Your task to perform on an android device: Go to display settings Image 0: 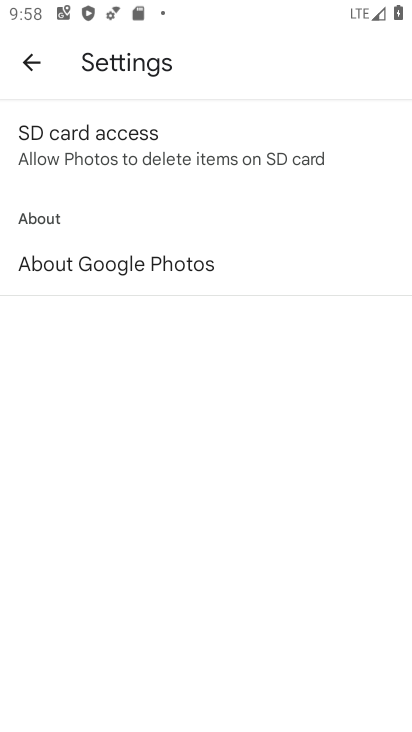
Step 0: press home button
Your task to perform on an android device: Go to display settings Image 1: 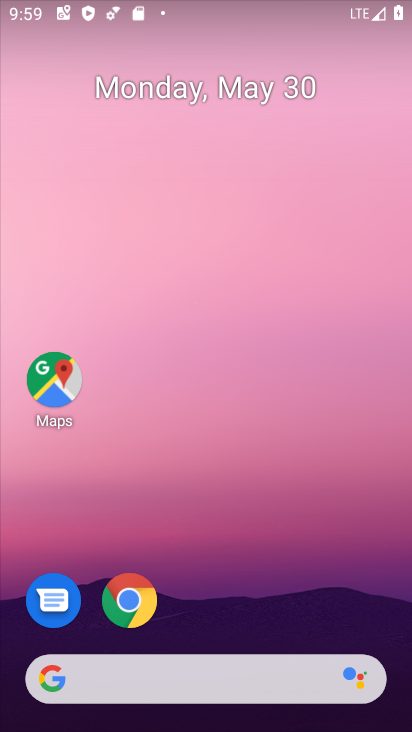
Step 1: drag from (284, 588) to (270, 428)
Your task to perform on an android device: Go to display settings Image 2: 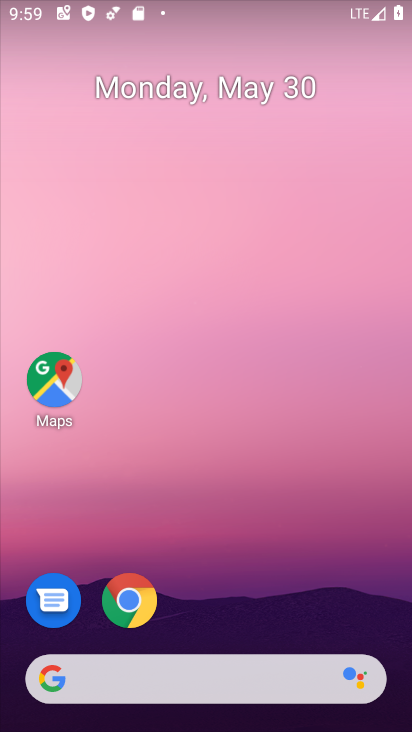
Step 2: drag from (320, 537) to (270, 0)
Your task to perform on an android device: Go to display settings Image 3: 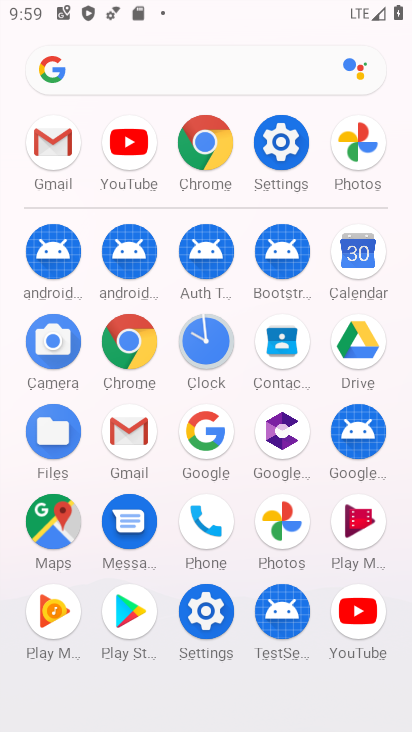
Step 3: click (279, 142)
Your task to perform on an android device: Go to display settings Image 4: 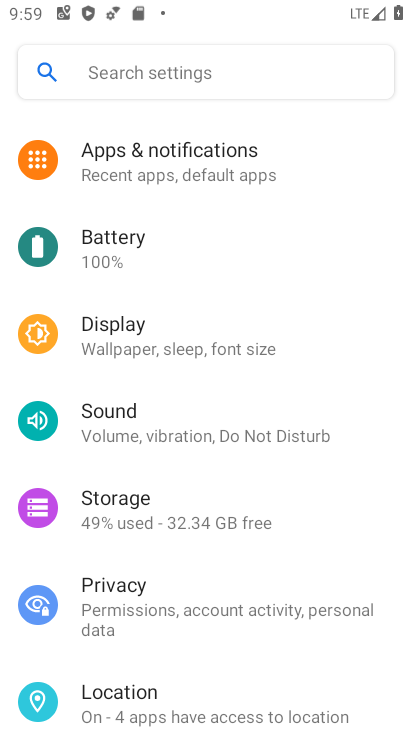
Step 4: click (150, 344)
Your task to perform on an android device: Go to display settings Image 5: 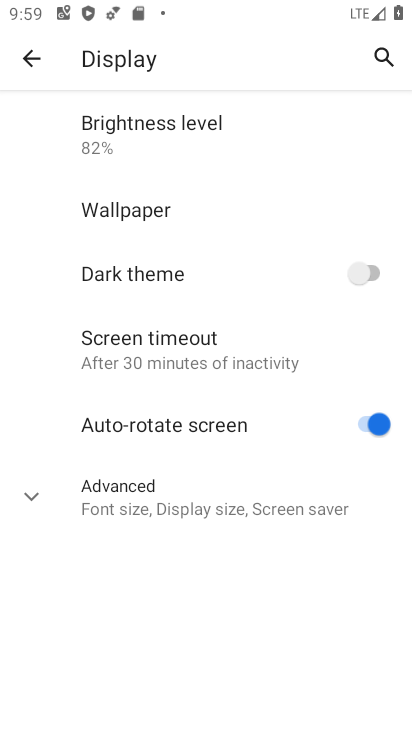
Step 5: task complete